Your task to perform on an android device: Go to battery settings Image 0: 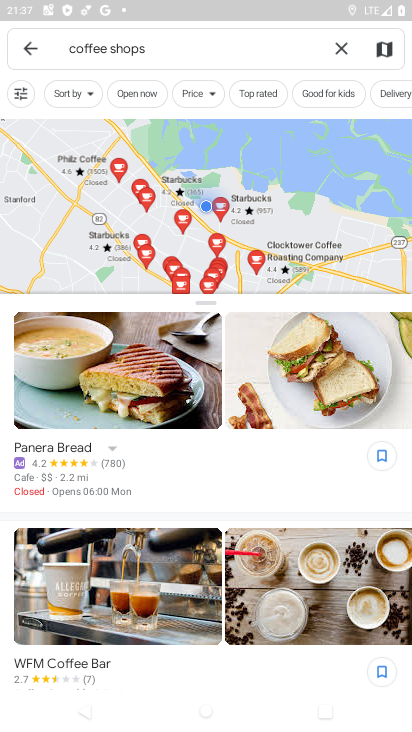
Step 0: press home button
Your task to perform on an android device: Go to battery settings Image 1: 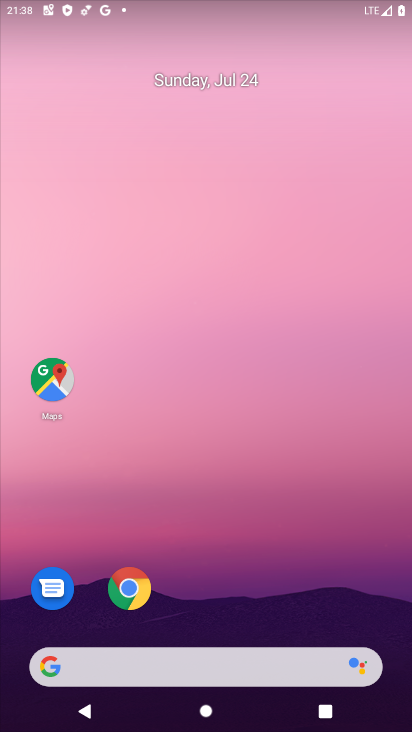
Step 1: drag from (190, 668) to (216, 114)
Your task to perform on an android device: Go to battery settings Image 2: 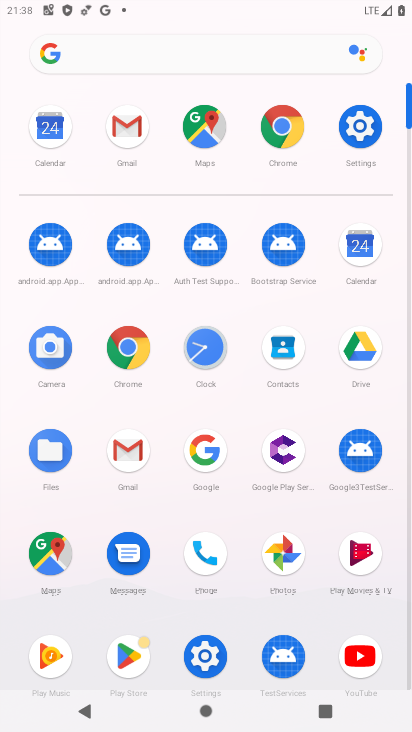
Step 2: click (361, 127)
Your task to perform on an android device: Go to battery settings Image 3: 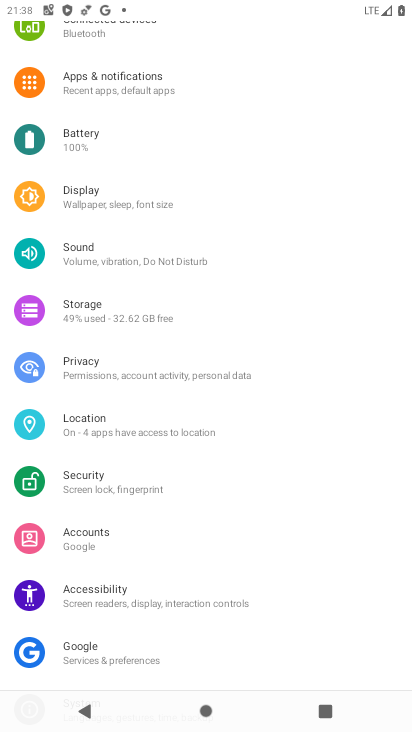
Step 3: click (86, 132)
Your task to perform on an android device: Go to battery settings Image 4: 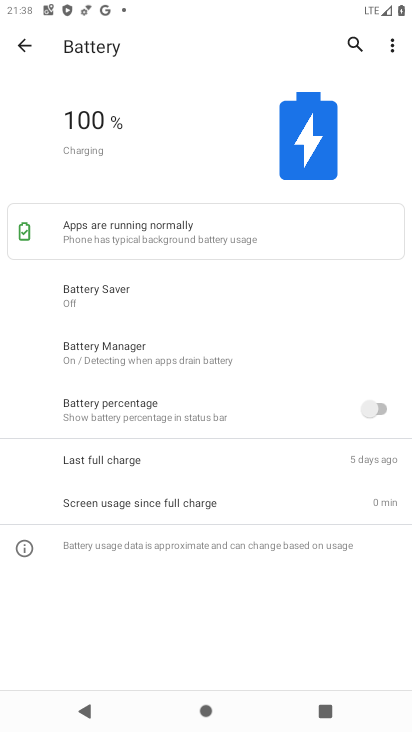
Step 4: task complete